Your task to perform on an android device: turn notification dots off Image 0: 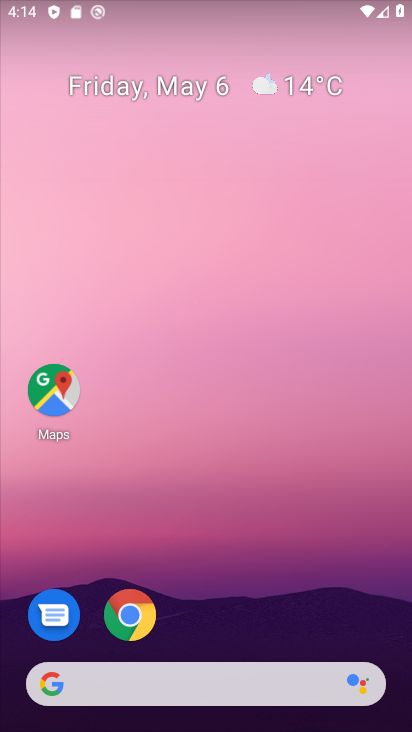
Step 0: drag from (261, 632) to (237, 391)
Your task to perform on an android device: turn notification dots off Image 1: 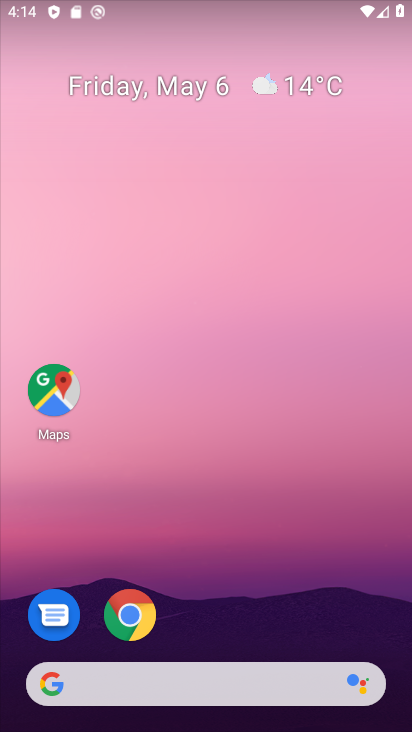
Step 1: drag from (222, 600) to (125, 2)
Your task to perform on an android device: turn notification dots off Image 2: 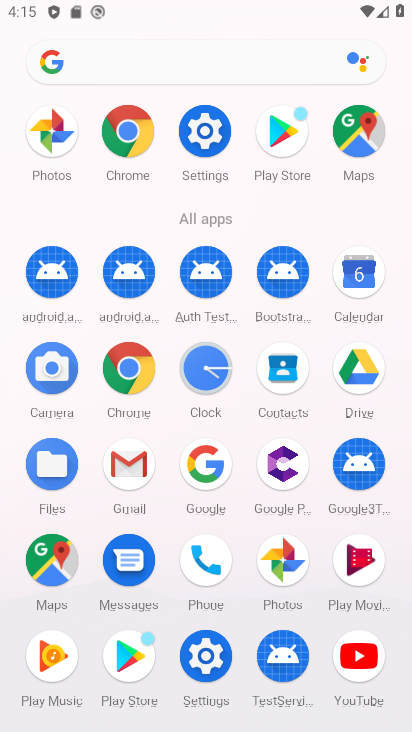
Step 2: click (212, 183)
Your task to perform on an android device: turn notification dots off Image 3: 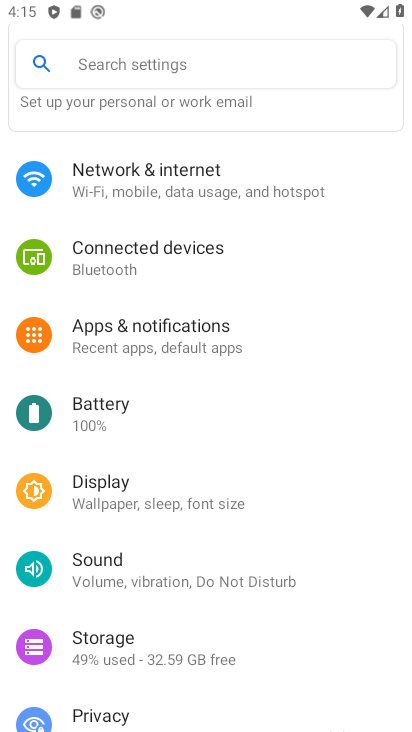
Step 3: click (204, 364)
Your task to perform on an android device: turn notification dots off Image 4: 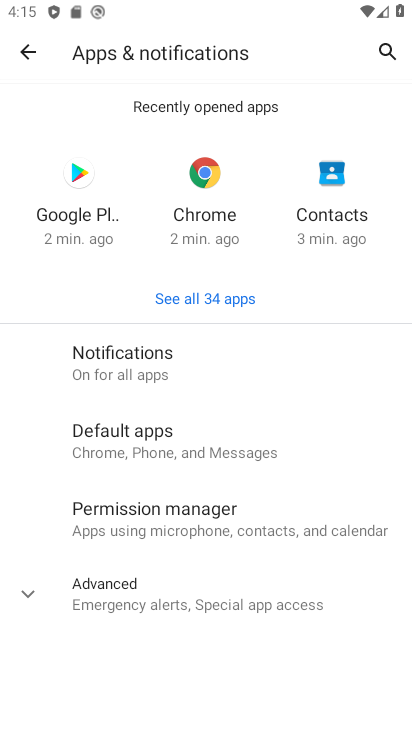
Step 4: click (170, 595)
Your task to perform on an android device: turn notification dots off Image 5: 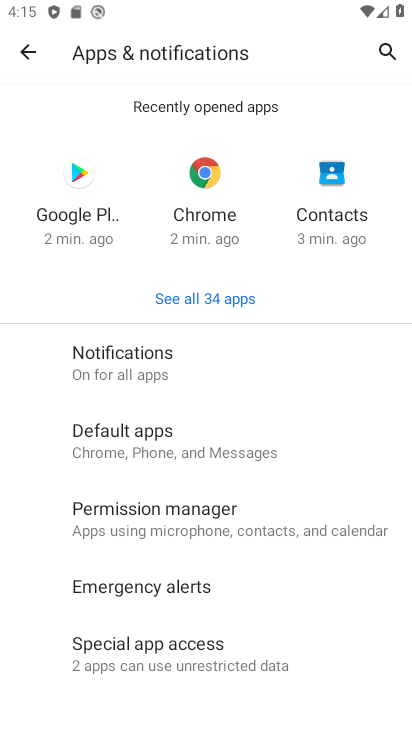
Step 5: click (230, 361)
Your task to perform on an android device: turn notification dots off Image 6: 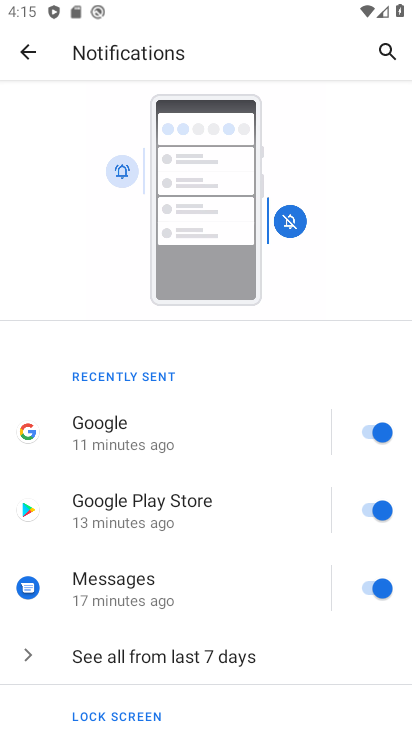
Step 6: drag from (220, 606) to (222, 341)
Your task to perform on an android device: turn notification dots off Image 7: 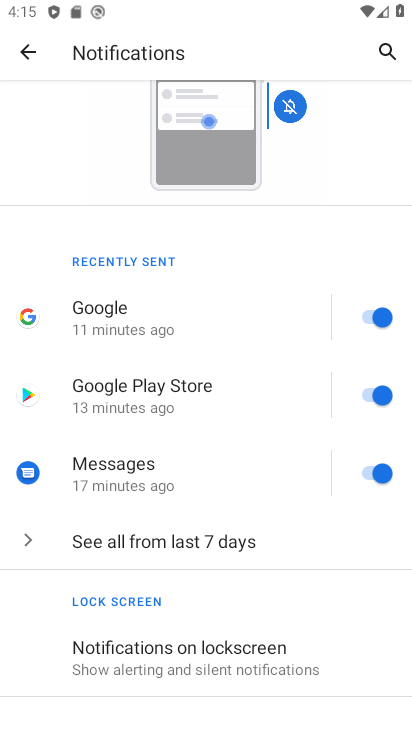
Step 7: drag from (148, 636) to (194, 257)
Your task to perform on an android device: turn notification dots off Image 8: 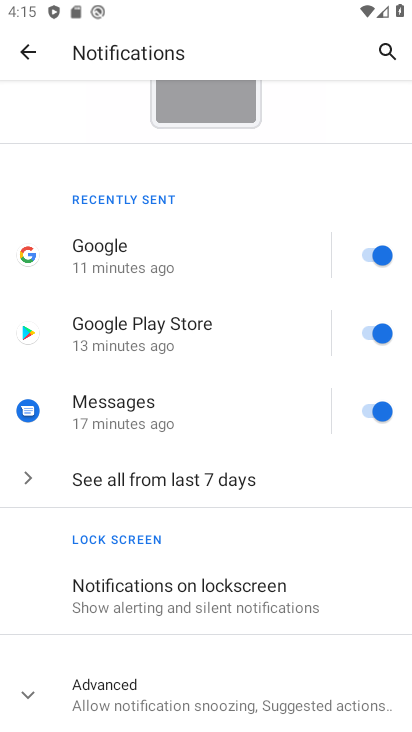
Step 8: click (169, 696)
Your task to perform on an android device: turn notification dots off Image 9: 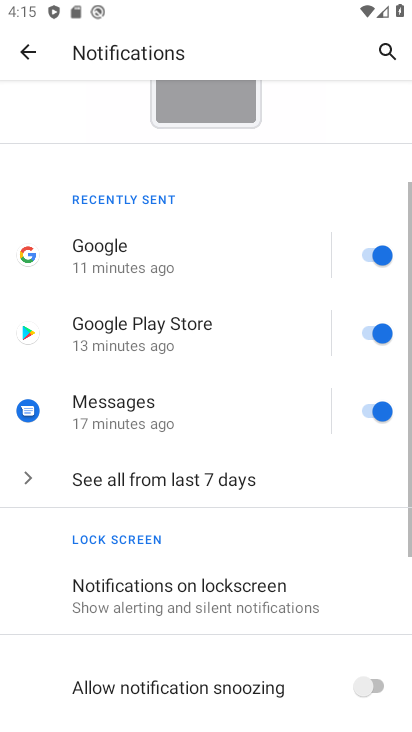
Step 9: drag from (198, 568) to (261, 337)
Your task to perform on an android device: turn notification dots off Image 10: 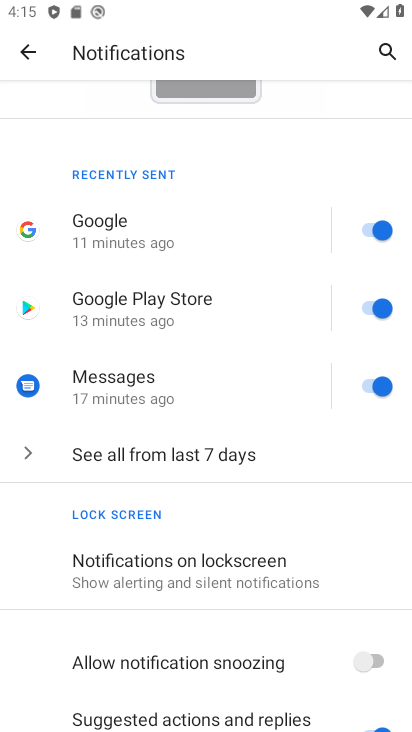
Step 10: click (271, 699)
Your task to perform on an android device: turn notification dots off Image 11: 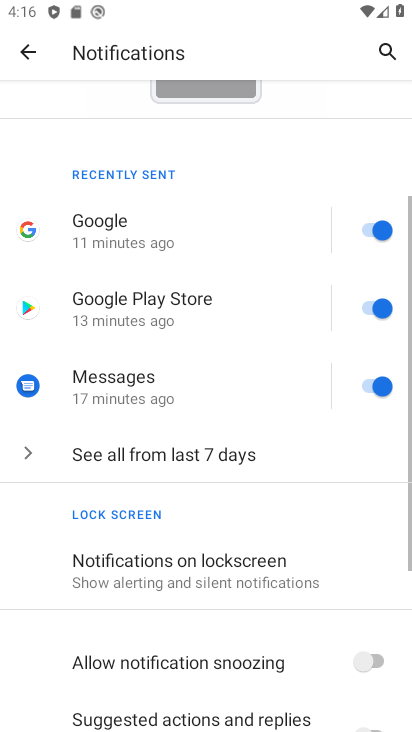
Step 11: drag from (264, 570) to (273, 483)
Your task to perform on an android device: turn notification dots off Image 12: 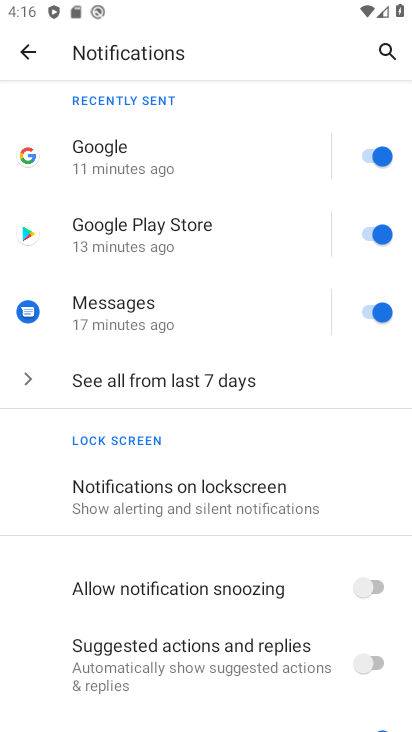
Step 12: drag from (218, 664) to (254, 479)
Your task to perform on an android device: turn notification dots off Image 13: 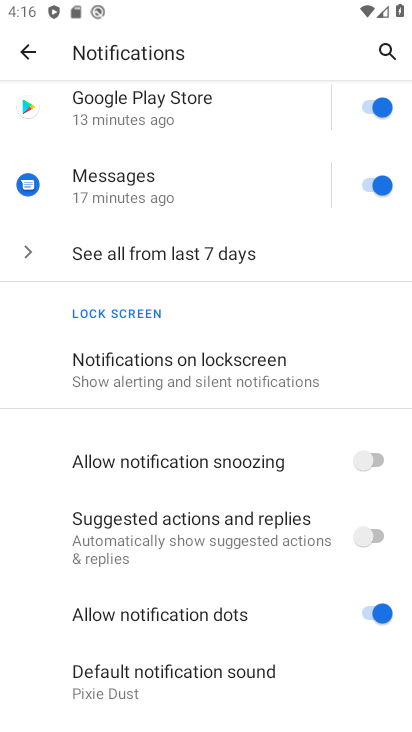
Step 13: click (383, 606)
Your task to perform on an android device: turn notification dots off Image 14: 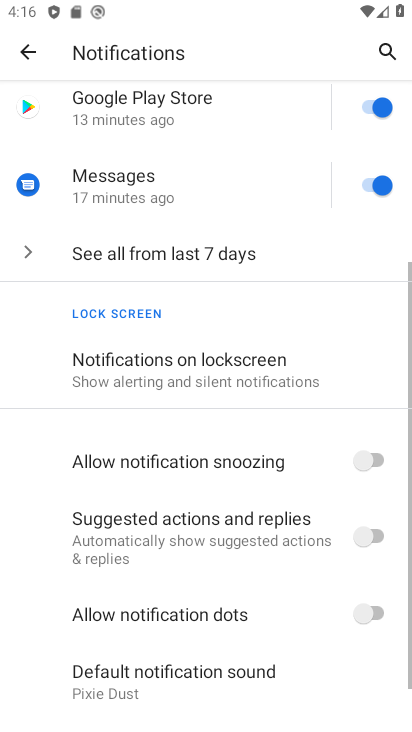
Step 14: task complete